Your task to perform on an android device: star an email in the gmail app Image 0: 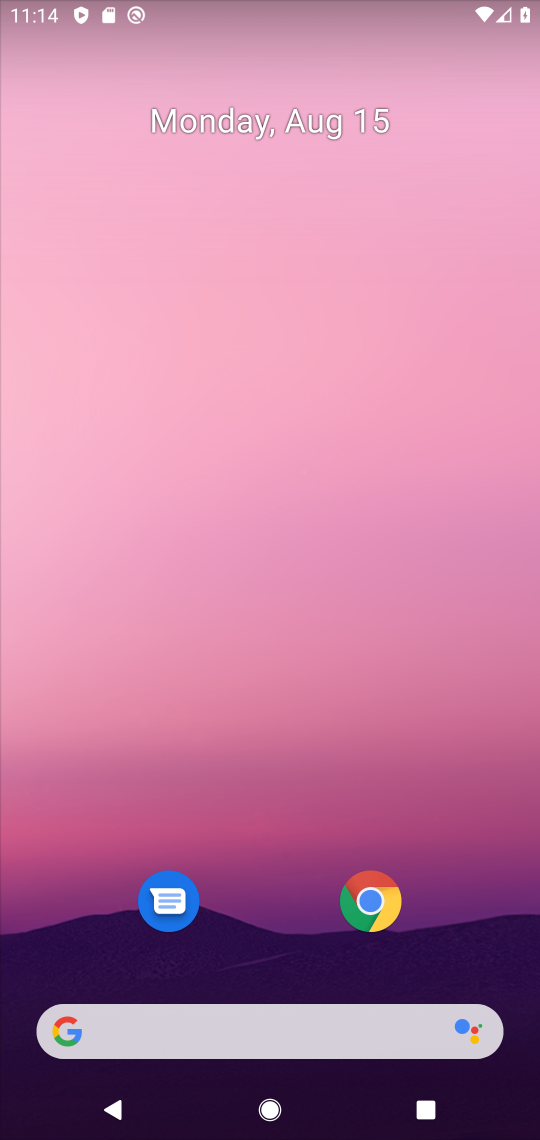
Step 0: press home button
Your task to perform on an android device: star an email in the gmail app Image 1: 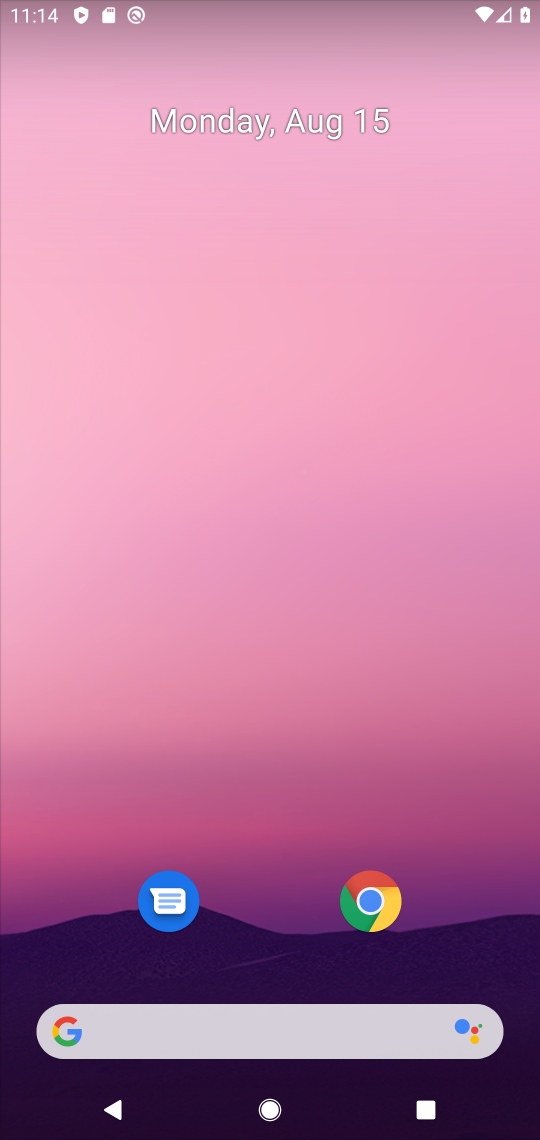
Step 1: drag from (314, 957) to (352, 10)
Your task to perform on an android device: star an email in the gmail app Image 2: 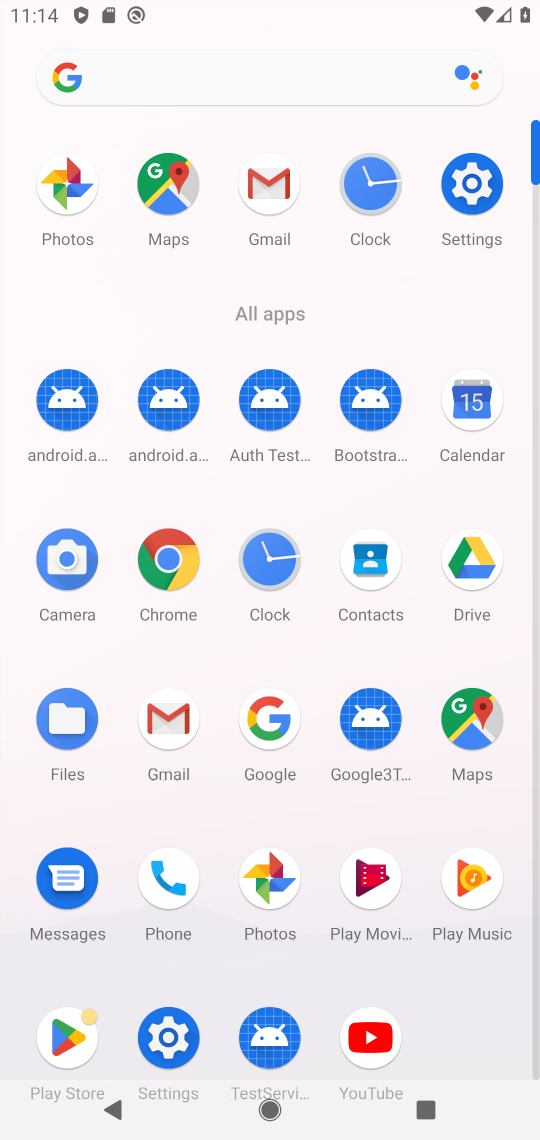
Step 2: click (275, 210)
Your task to perform on an android device: star an email in the gmail app Image 3: 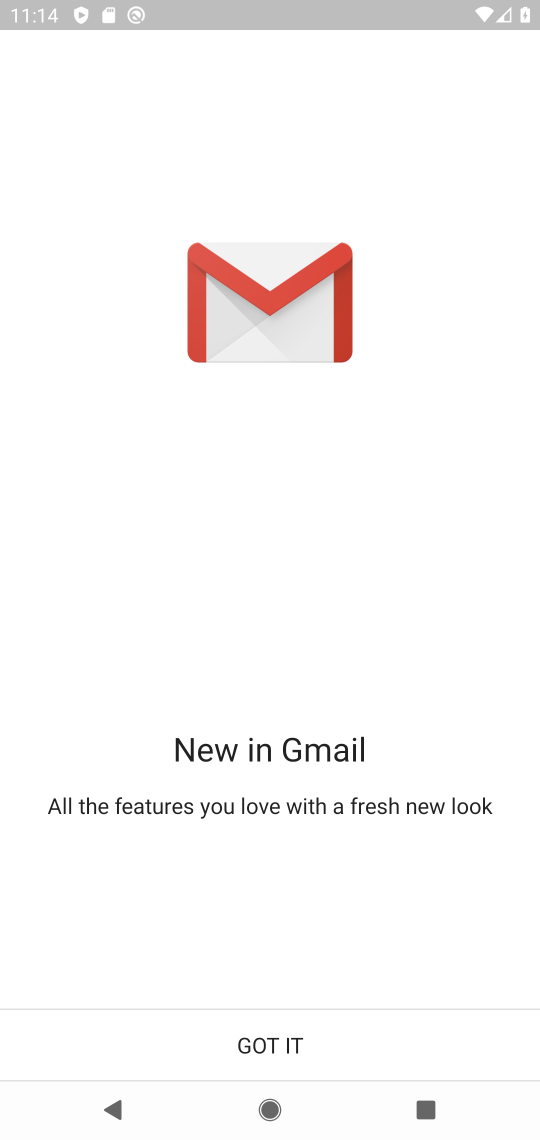
Step 3: click (276, 1035)
Your task to perform on an android device: star an email in the gmail app Image 4: 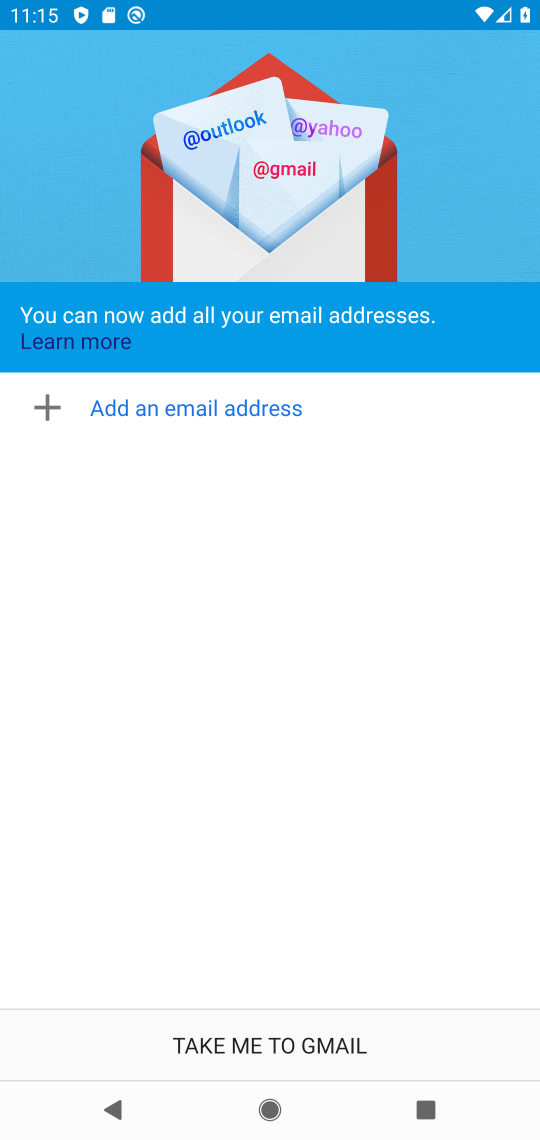
Step 4: click (231, 1047)
Your task to perform on an android device: star an email in the gmail app Image 5: 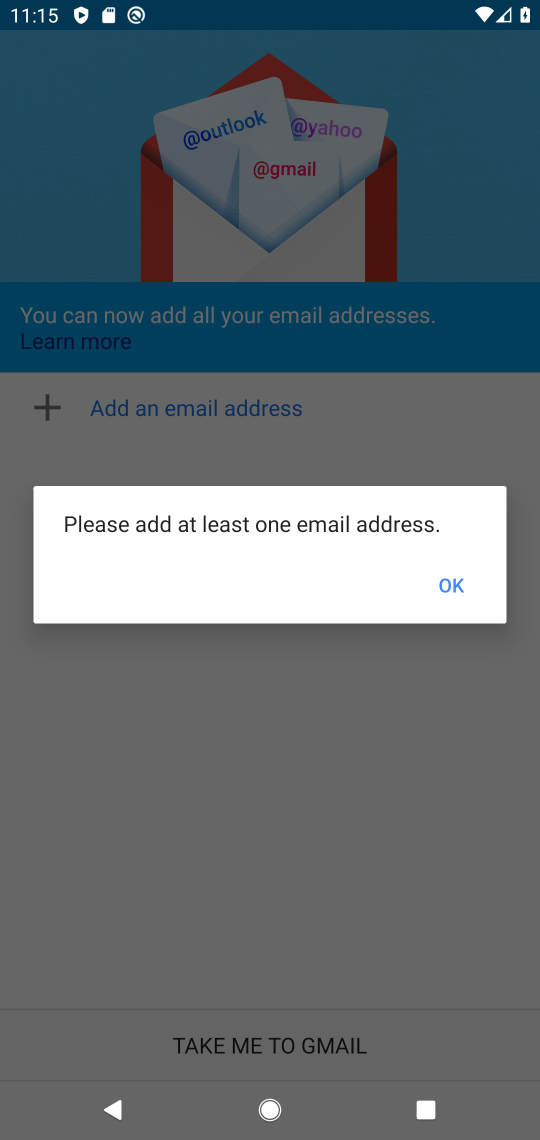
Step 5: click (461, 583)
Your task to perform on an android device: star an email in the gmail app Image 6: 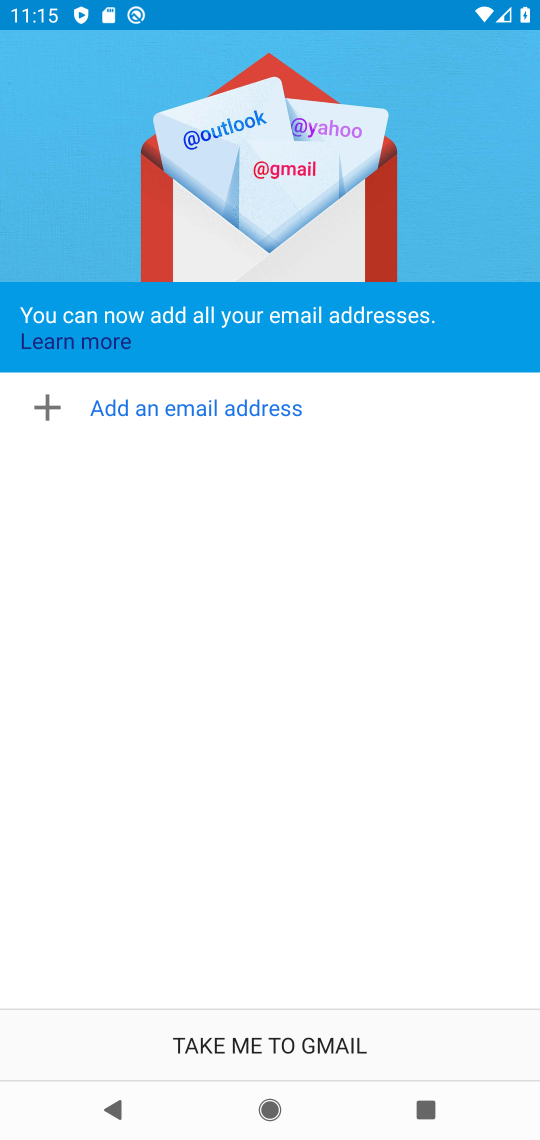
Step 6: click (262, 1042)
Your task to perform on an android device: star an email in the gmail app Image 7: 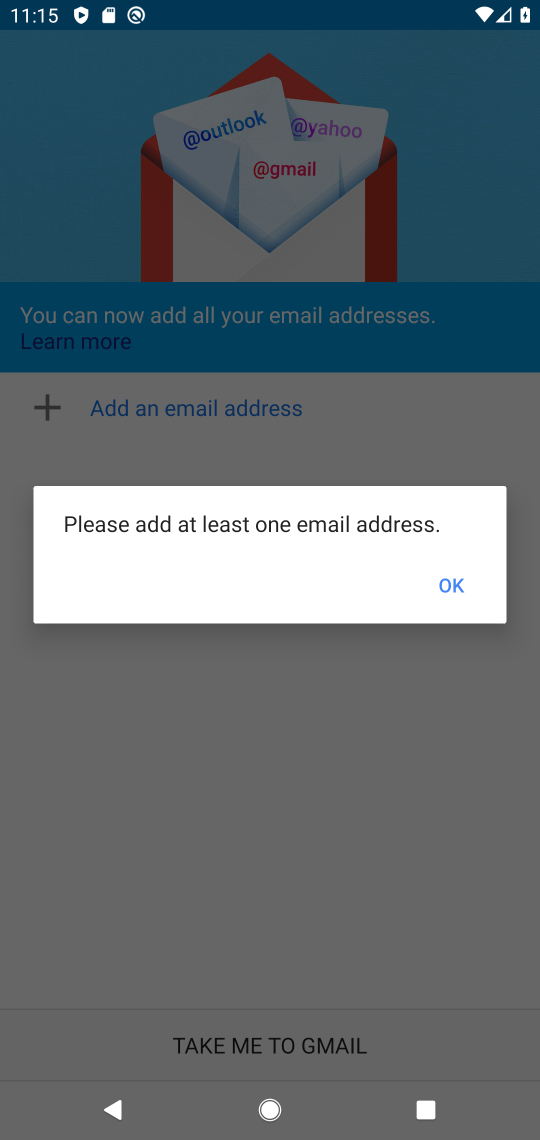
Step 7: click (455, 594)
Your task to perform on an android device: star an email in the gmail app Image 8: 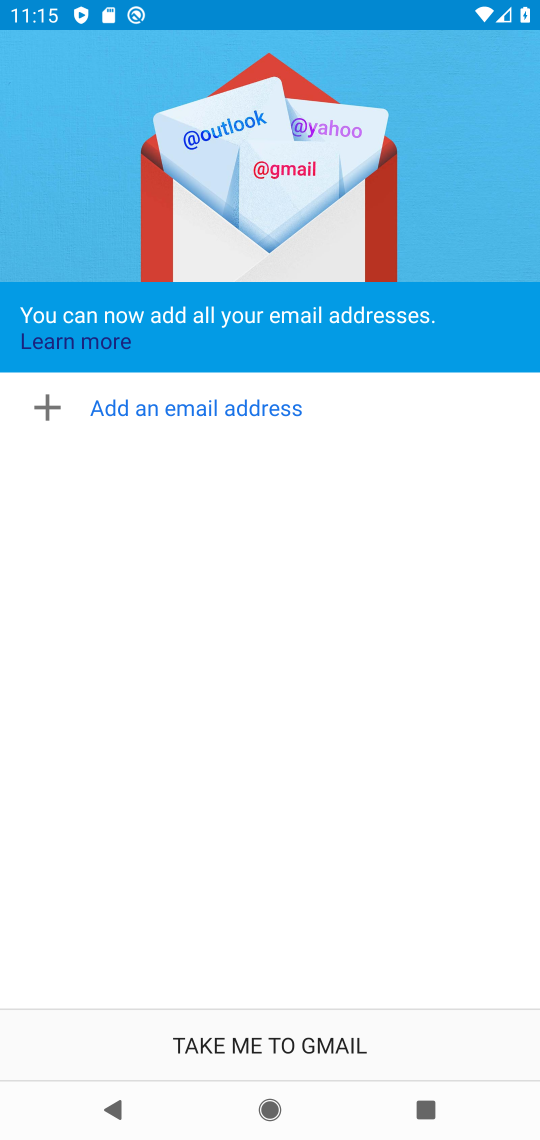
Step 8: task complete